Your task to perform on an android device: Go to calendar. Show me events next week Image 0: 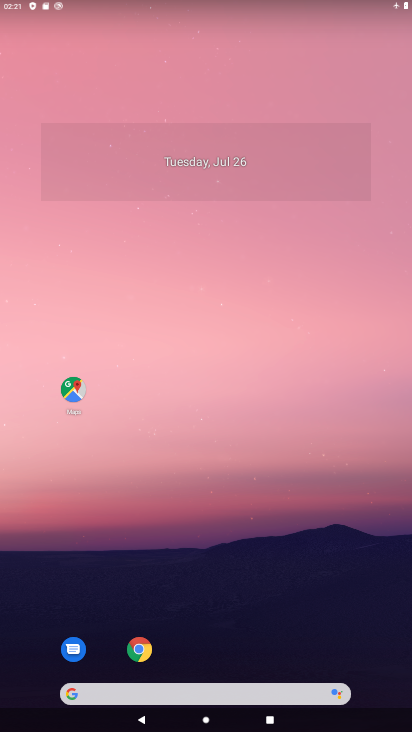
Step 0: drag from (195, 699) to (256, 68)
Your task to perform on an android device: Go to calendar. Show me events next week Image 1: 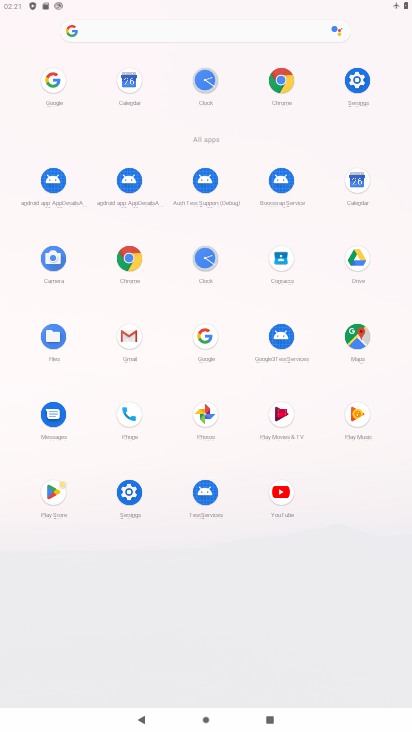
Step 1: click (358, 185)
Your task to perform on an android device: Go to calendar. Show me events next week Image 2: 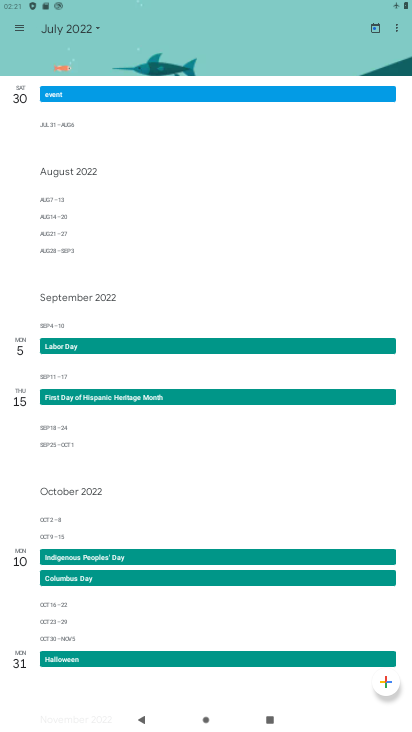
Step 2: click (379, 27)
Your task to perform on an android device: Go to calendar. Show me events next week Image 3: 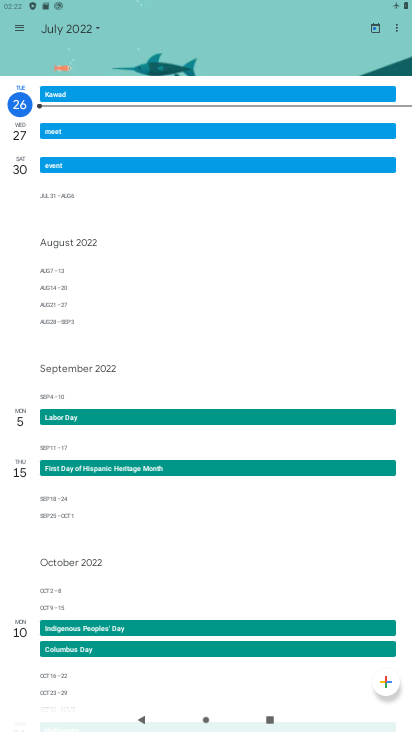
Step 3: click (97, 28)
Your task to perform on an android device: Go to calendar. Show me events next week Image 4: 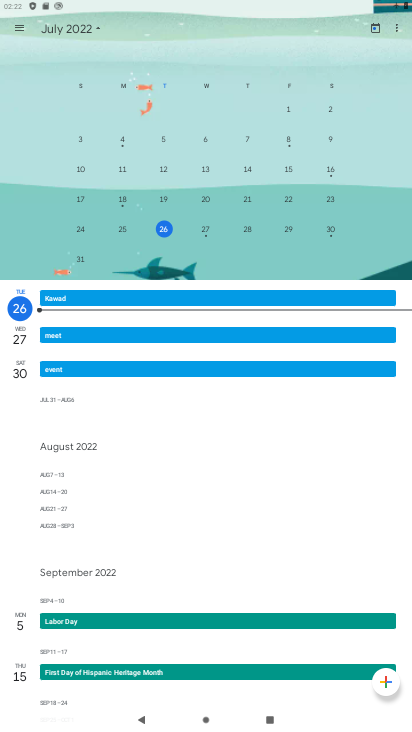
Step 4: drag from (297, 214) to (26, 193)
Your task to perform on an android device: Go to calendar. Show me events next week Image 5: 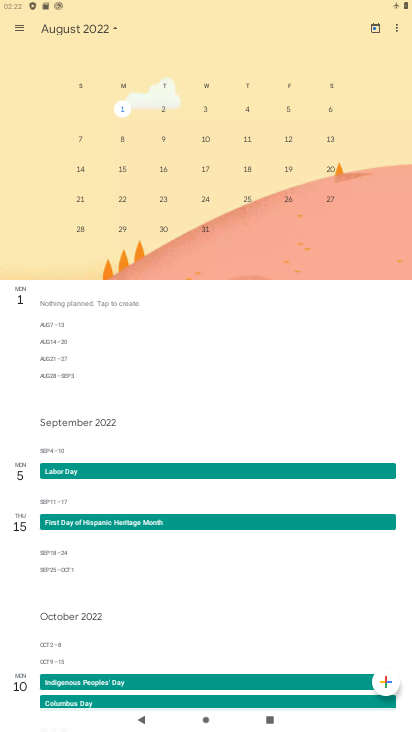
Step 5: click (125, 107)
Your task to perform on an android device: Go to calendar. Show me events next week Image 6: 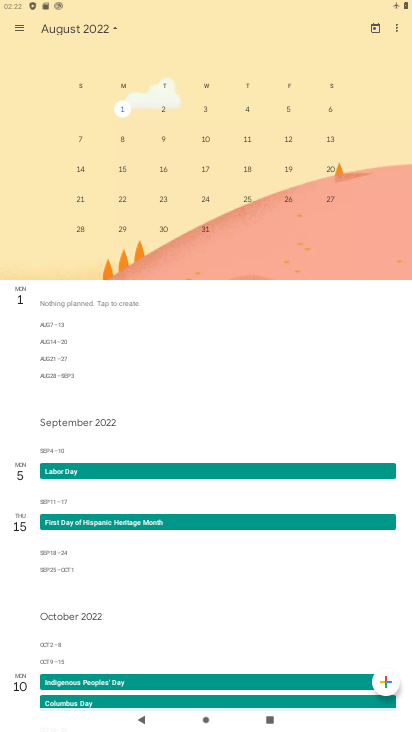
Step 6: click (76, 307)
Your task to perform on an android device: Go to calendar. Show me events next week Image 7: 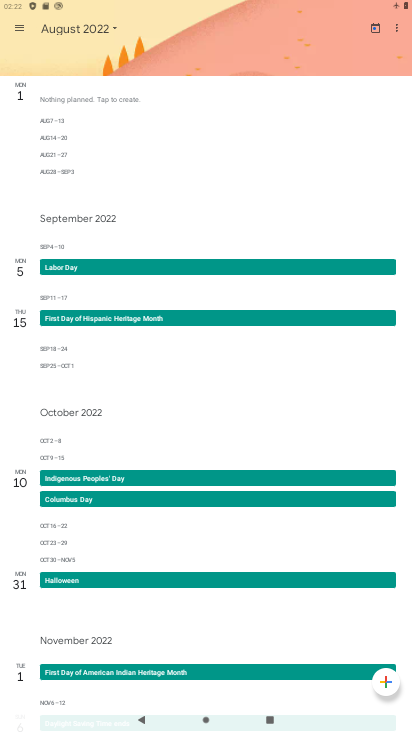
Step 7: click (128, 104)
Your task to perform on an android device: Go to calendar. Show me events next week Image 8: 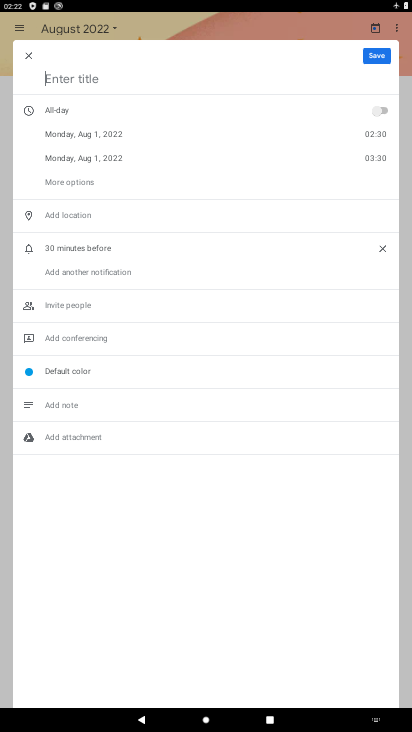
Step 8: type "wedding"
Your task to perform on an android device: Go to calendar. Show me events next week Image 9: 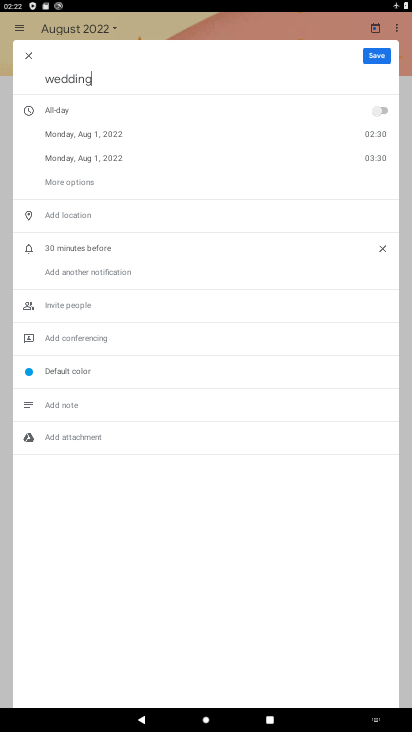
Step 9: type ""
Your task to perform on an android device: Go to calendar. Show me events next week Image 10: 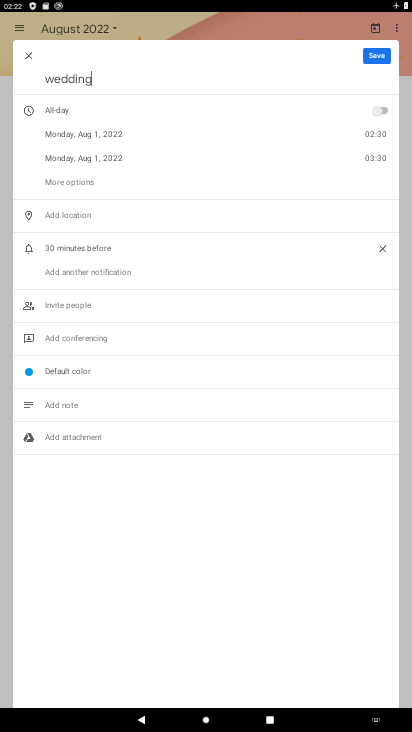
Step 10: click (380, 112)
Your task to perform on an android device: Go to calendar. Show me events next week Image 11: 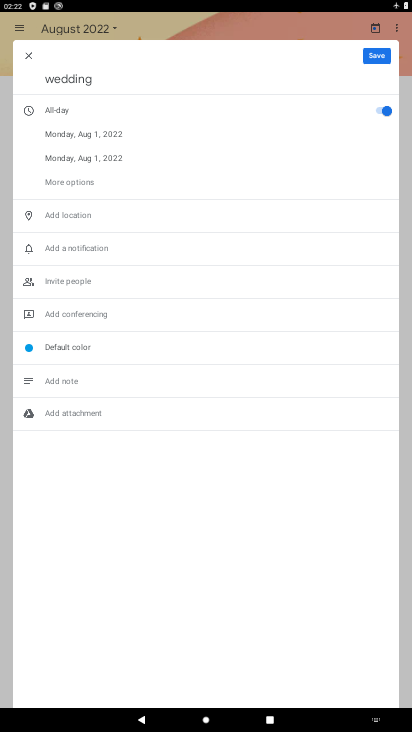
Step 11: click (381, 55)
Your task to perform on an android device: Go to calendar. Show me events next week Image 12: 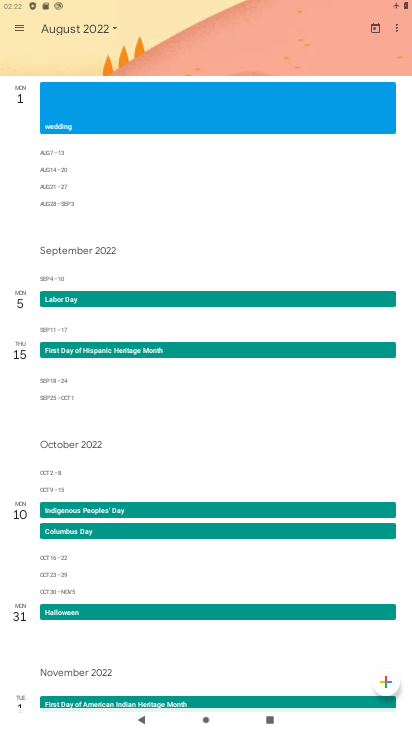
Step 12: task complete